Your task to perform on an android device: empty trash in google photos Image 0: 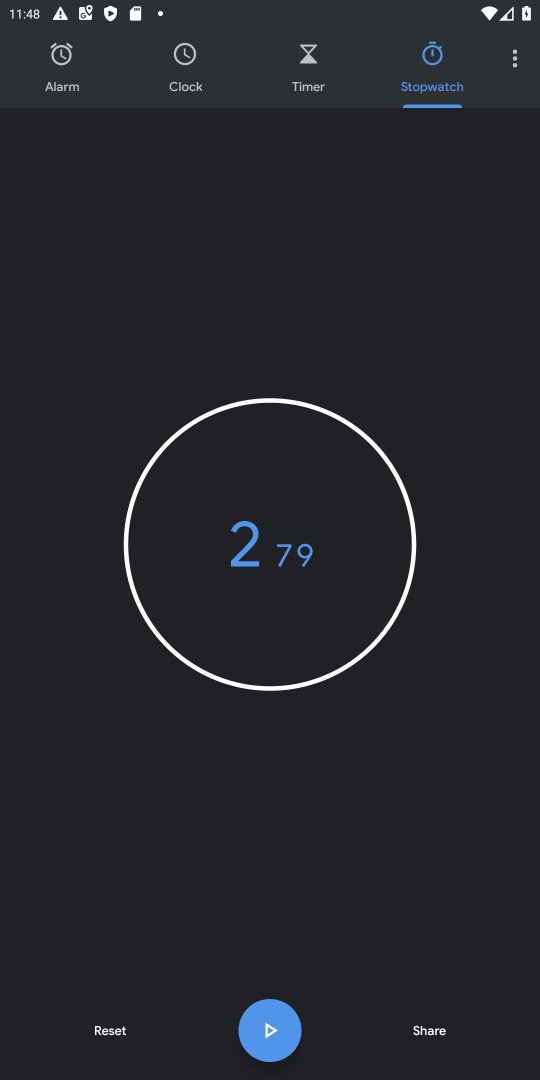
Step 0: press home button
Your task to perform on an android device: empty trash in google photos Image 1: 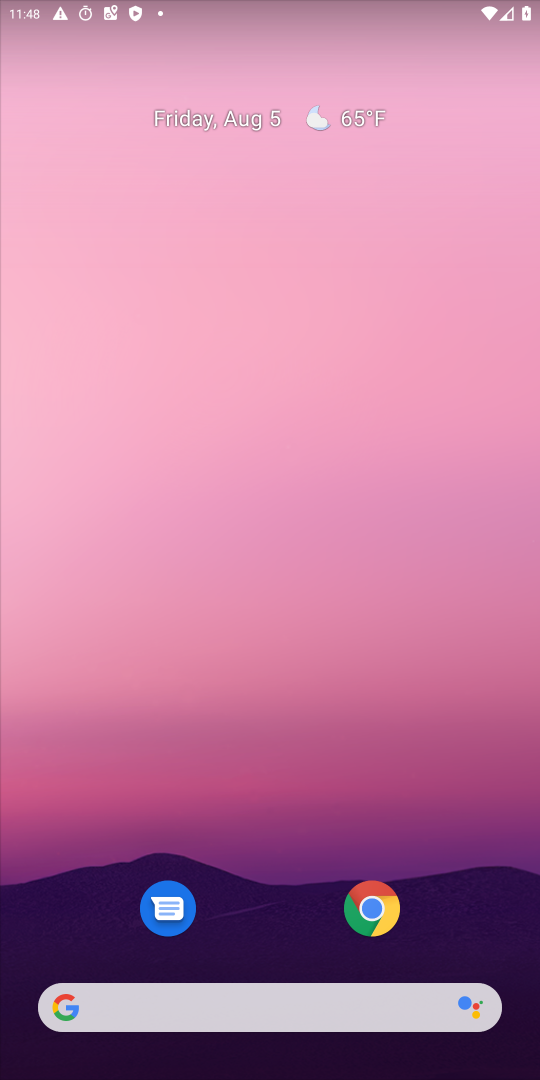
Step 1: drag from (40, 1063) to (284, 485)
Your task to perform on an android device: empty trash in google photos Image 2: 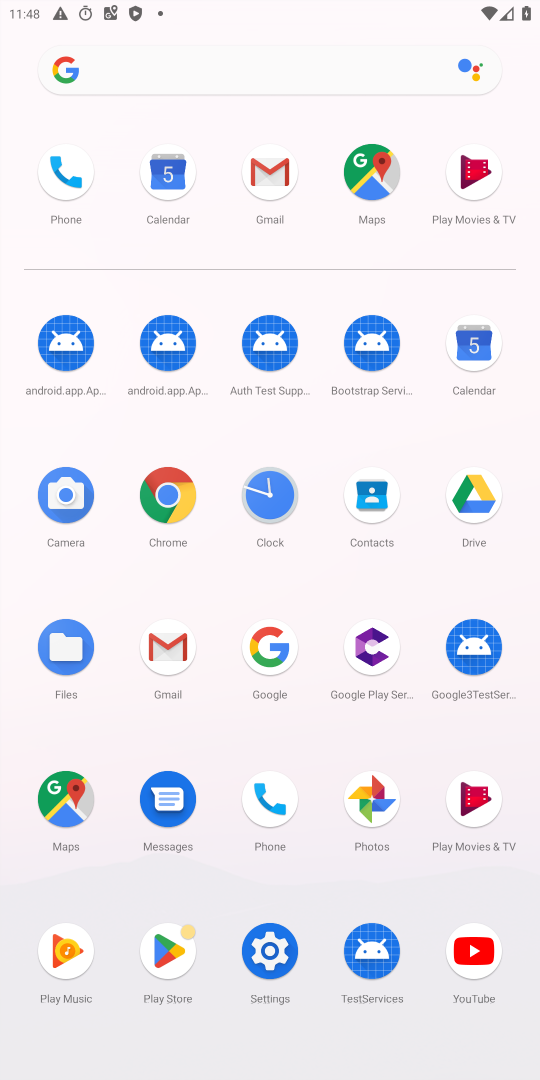
Step 2: click (359, 783)
Your task to perform on an android device: empty trash in google photos Image 3: 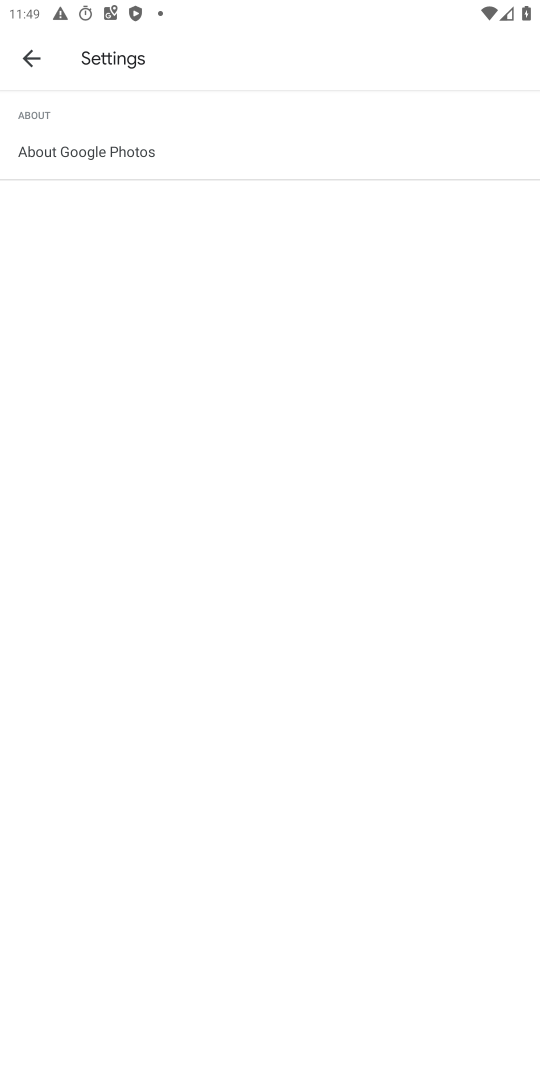
Step 3: click (15, 58)
Your task to perform on an android device: empty trash in google photos Image 4: 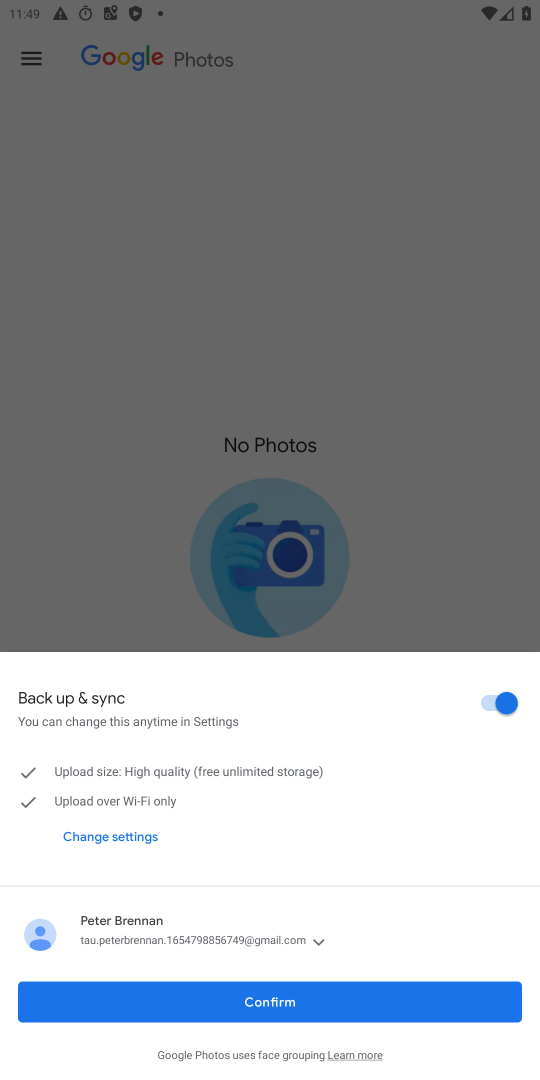
Step 4: click (281, 1018)
Your task to perform on an android device: empty trash in google photos Image 5: 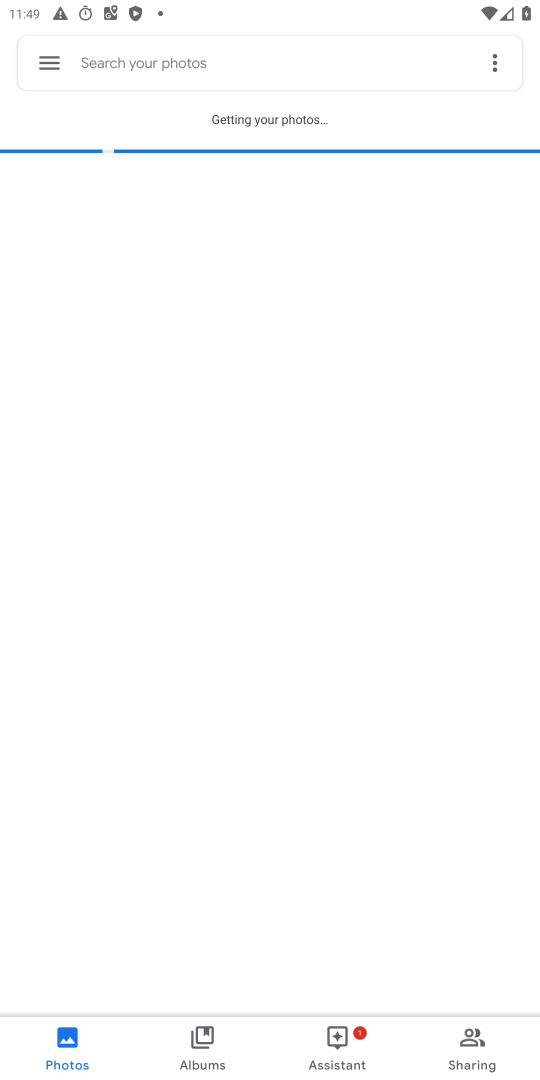
Step 5: click (45, 63)
Your task to perform on an android device: empty trash in google photos Image 6: 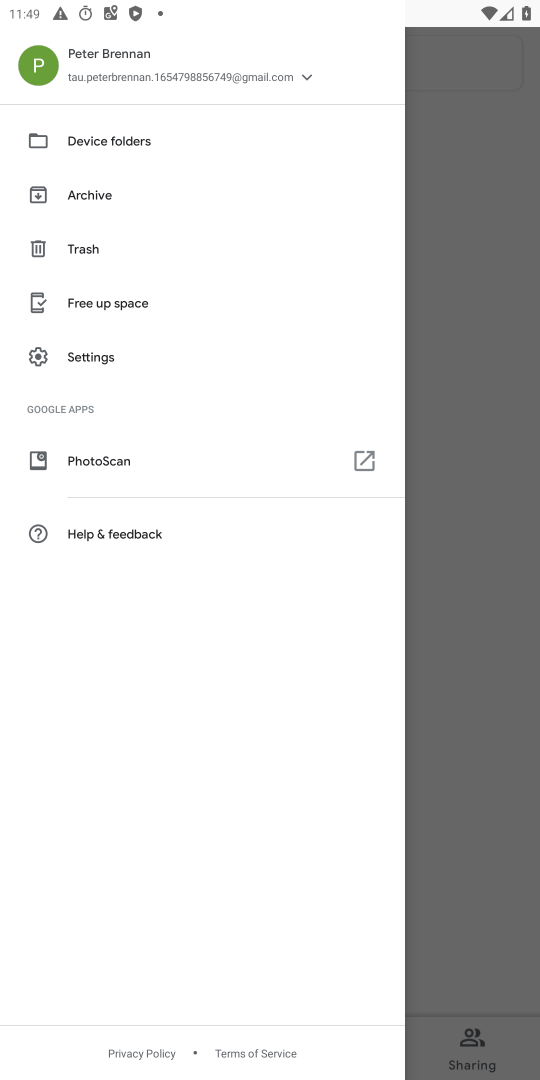
Step 6: click (74, 245)
Your task to perform on an android device: empty trash in google photos Image 7: 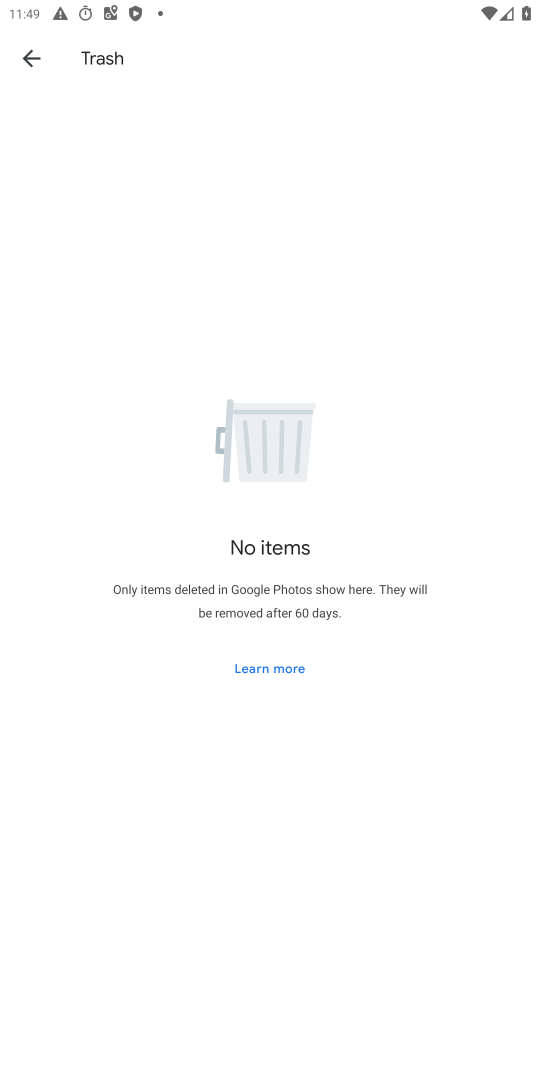
Step 7: task complete